Your task to perform on an android device: Do I have any events tomorrow? Image 0: 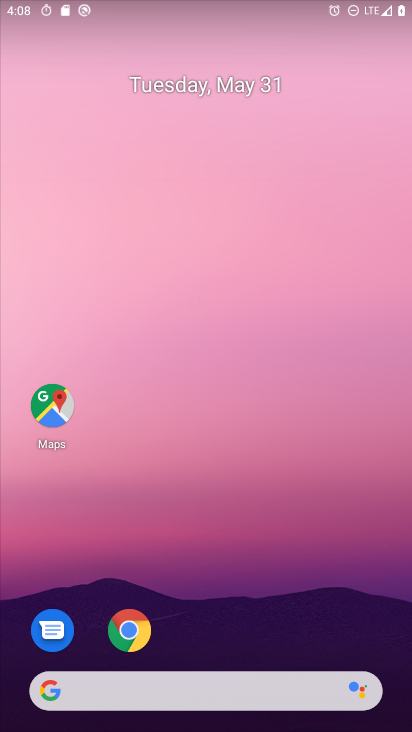
Step 0: drag from (290, 661) to (311, 65)
Your task to perform on an android device: Do I have any events tomorrow? Image 1: 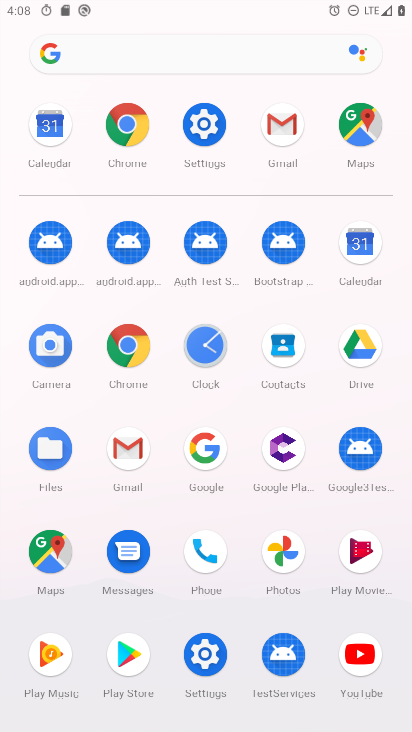
Step 1: click (364, 259)
Your task to perform on an android device: Do I have any events tomorrow? Image 2: 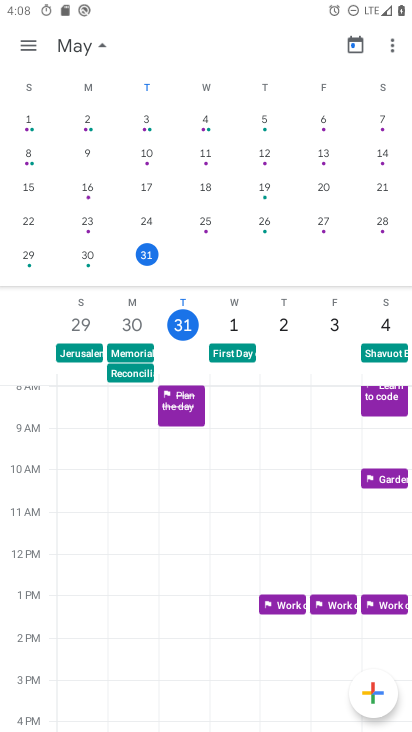
Step 2: drag from (384, 191) to (24, 183)
Your task to perform on an android device: Do I have any events tomorrow? Image 3: 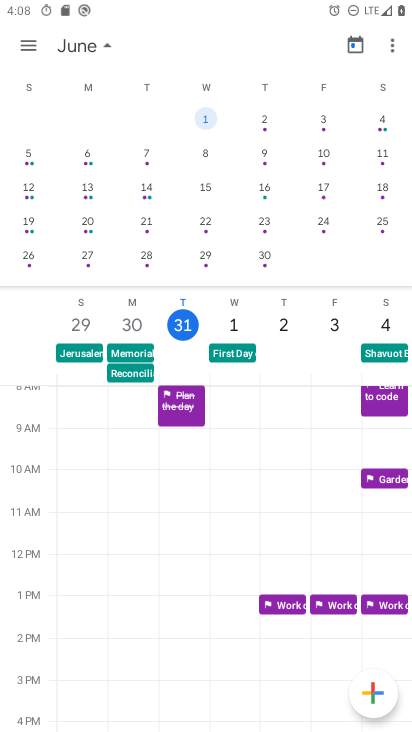
Step 3: click (213, 113)
Your task to perform on an android device: Do I have any events tomorrow? Image 4: 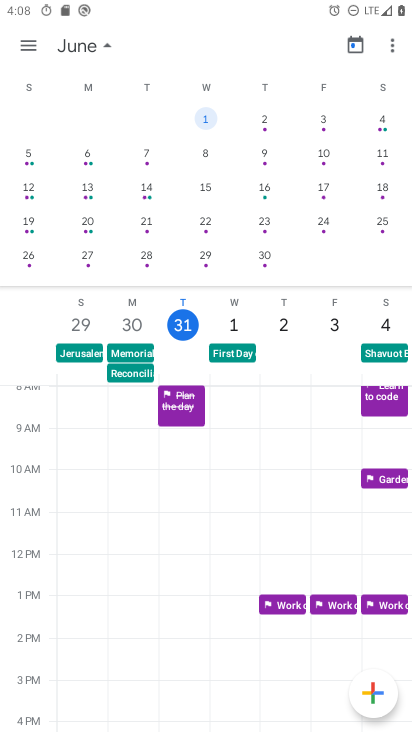
Step 4: click (204, 122)
Your task to perform on an android device: Do I have any events tomorrow? Image 5: 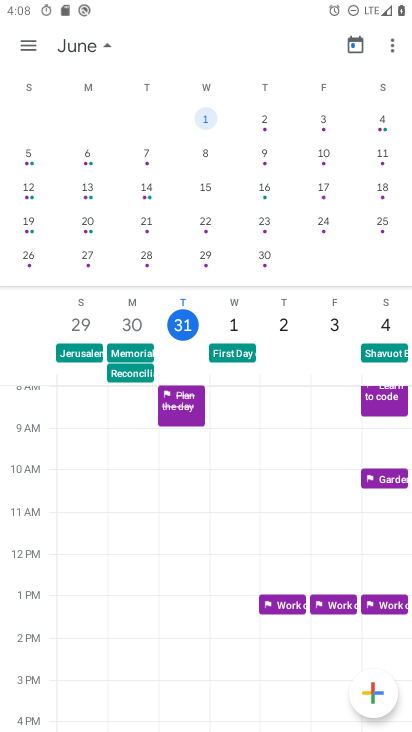
Step 5: task complete